Your task to perform on an android device: Open the calendar and show me this week's events Image 0: 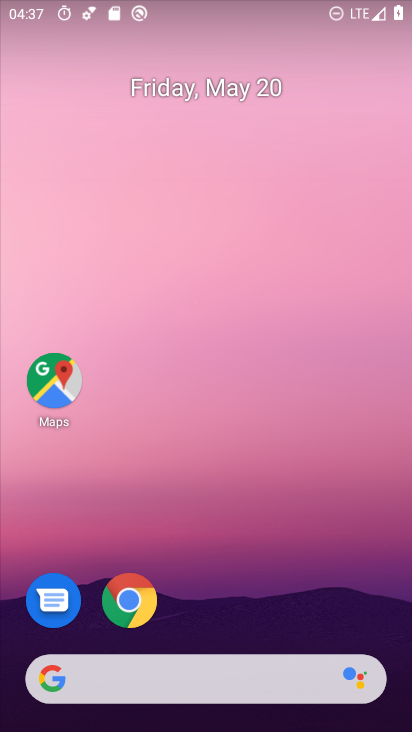
Step 0: drag from (234, 605) to (328, 66)
Your task to perform on an android device: Open the calendar and show me this week's events Image 1: 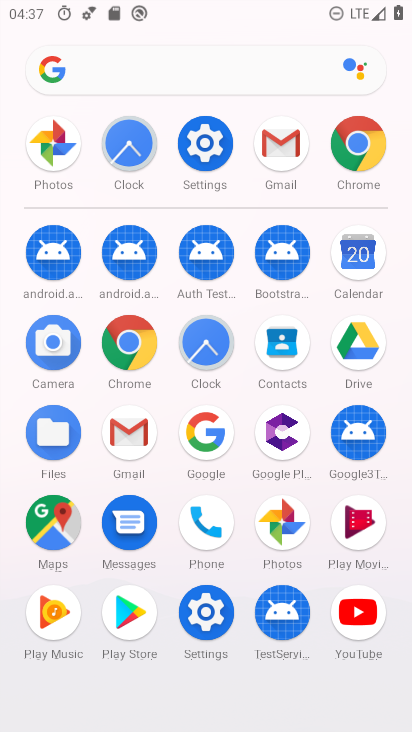
Step 1: click (364, 249)
Your task to perform on an android device: Open the calendar and show me this week's events Image 2: 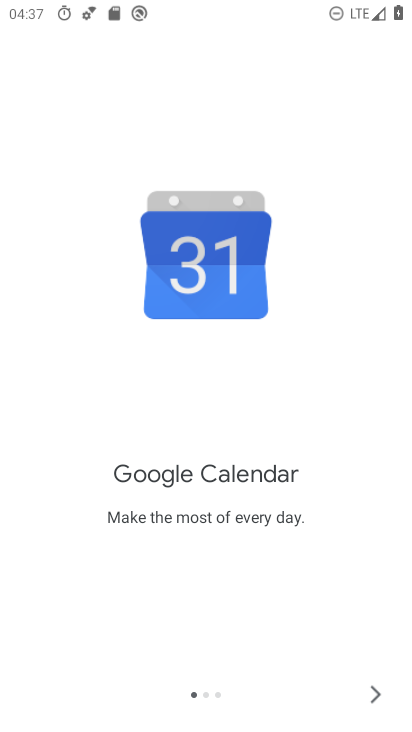
Step 2: click (372, 671)
Your task to perform on an android device: Open the calendar and show me this week's events Image 3: 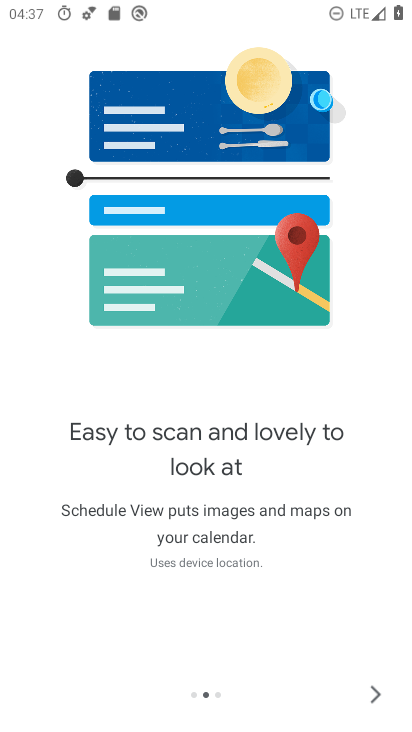
Step 3: click (376, 681)
Your task to perform on an android device: Open the calendar and show me this week's events Image 4: 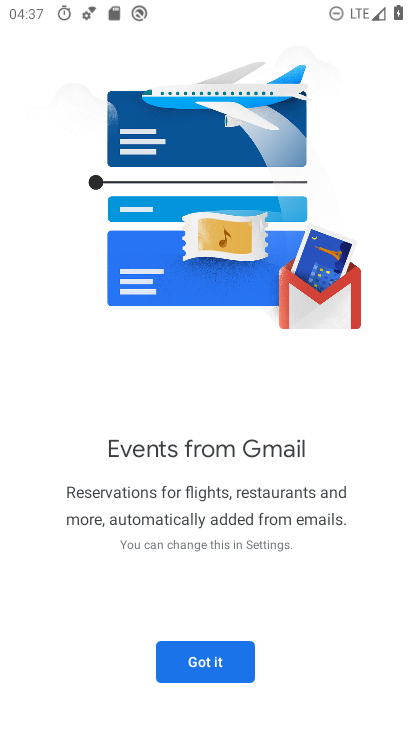
Step 4: click (179, 654)
Your task to perform on an android device: Open the calendar and show me this week's events Image 5: 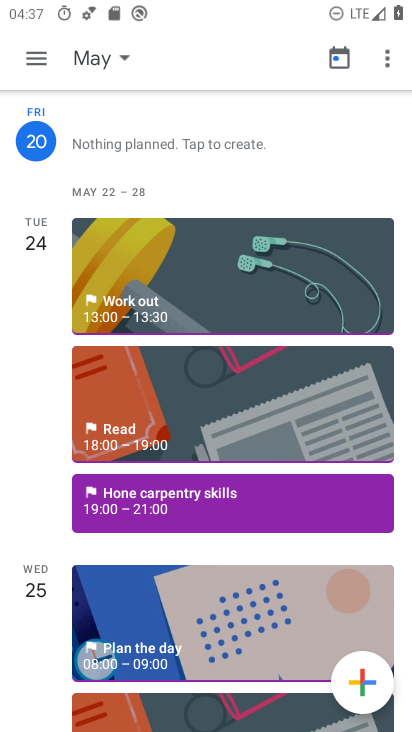
Step 5: click (110, 61)
Your task to perform on an android device: Open the calendar and show me this week's events Image 6: 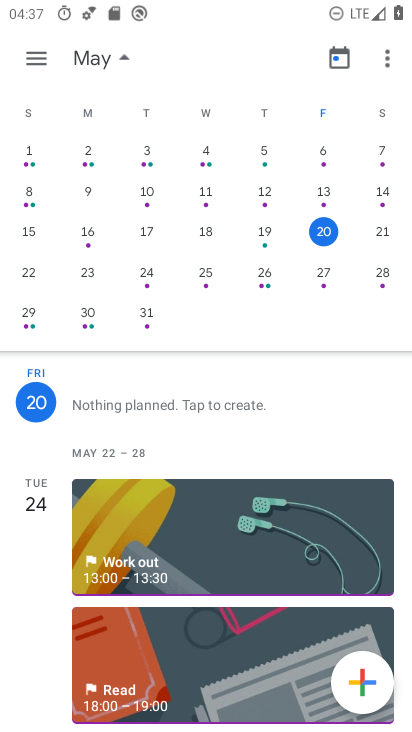
Step 6: drag from (395, 224) to (64, 238)
Your task to perform on an android device: Open the calendar and show me this week's events Image 7: 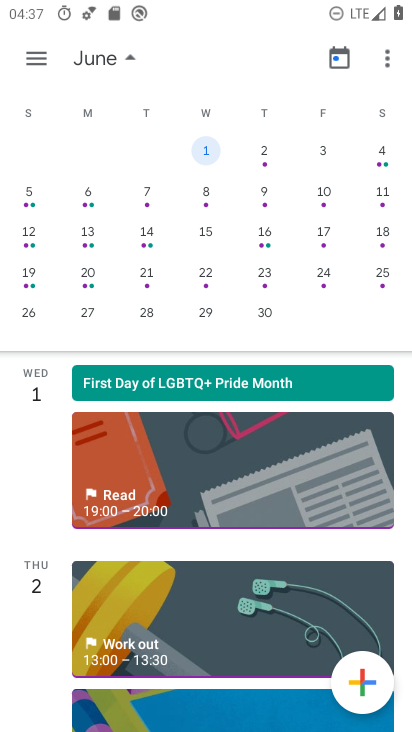
Step 7: drag from (103, 235) to (398, 220)
Your task to perform on an android device: Open the calendar and show me this week's events Image 8: 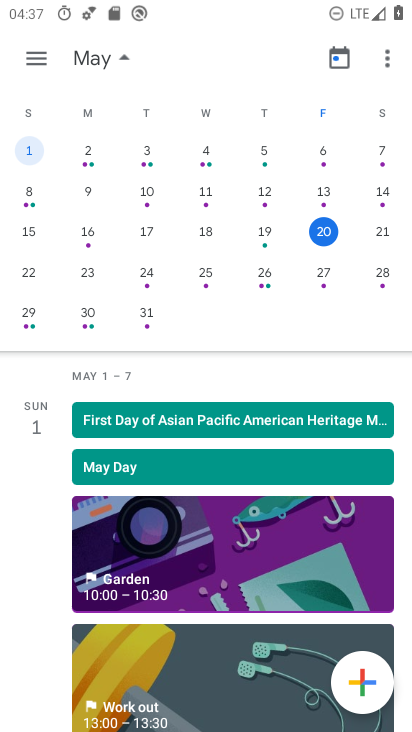
Step 8: click (318, 227)
Your task to perform on an android device: Open the calendar and show me this week's events Image 9: 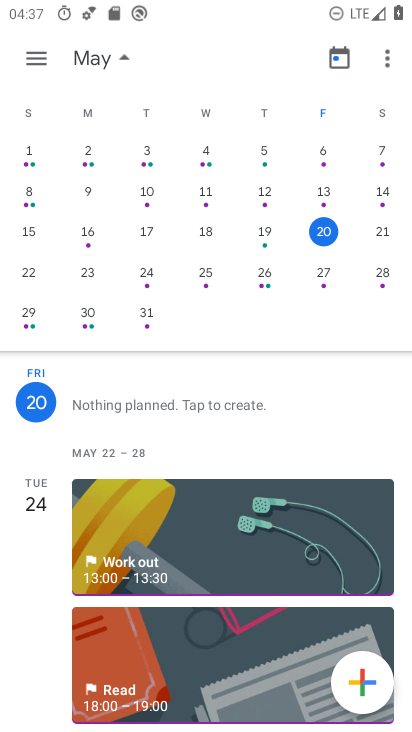
Step 9: task complete